Your task to perform on an android device: check google app version Image 0: 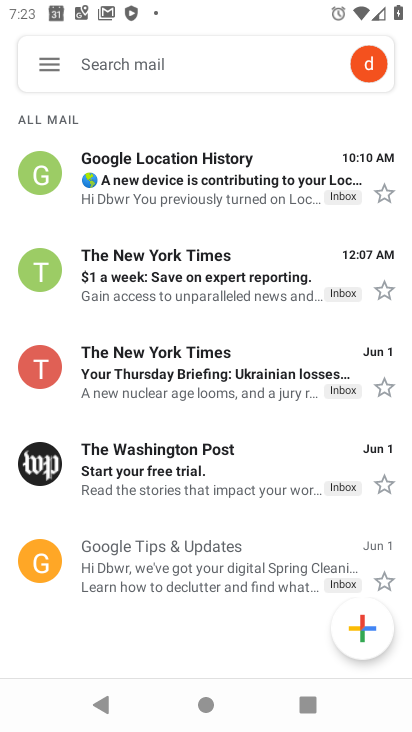
Step 0: press home button
Your task to perform on an android device: check google app version Image 1: 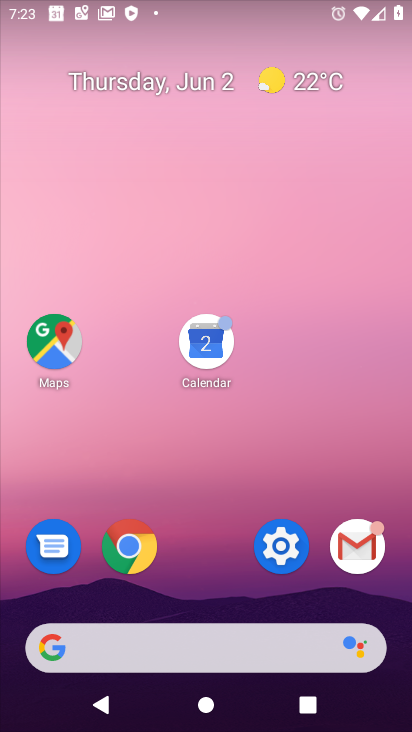
Step 1: click (133, 551)
Your task to perform on an android device: check google app version Image 2: 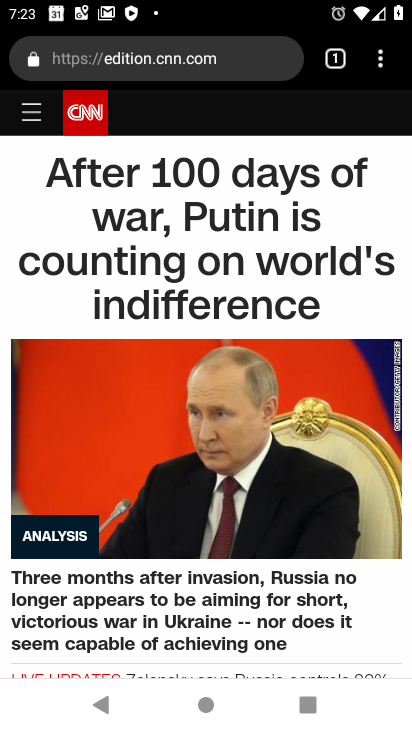
Step 2: click (388, 60)
Your task to perform on an android device: check google app version Image 3: 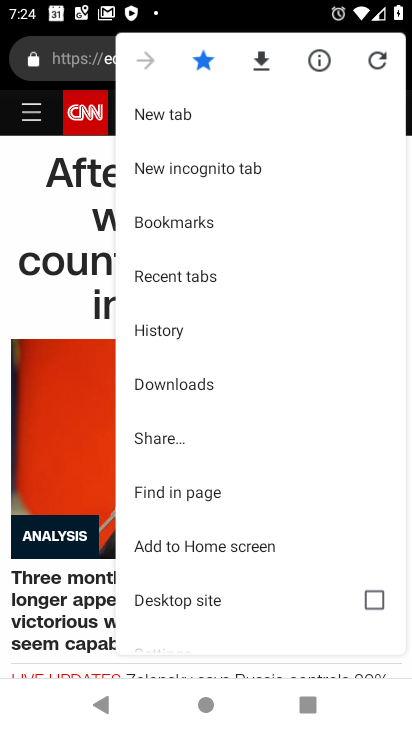
Step 3: drag from (261, 577) to (266, 419)
Your task to perform on an android device: check google app version Image 4: 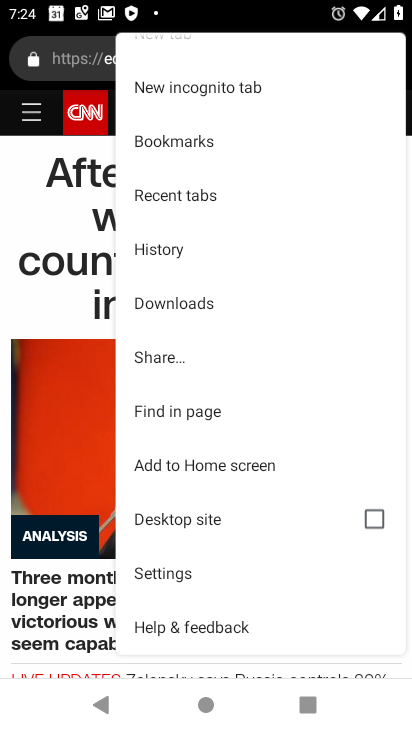
Step 4: click (163, 581)
Your task to perform on an android device: check google app version Image 5: 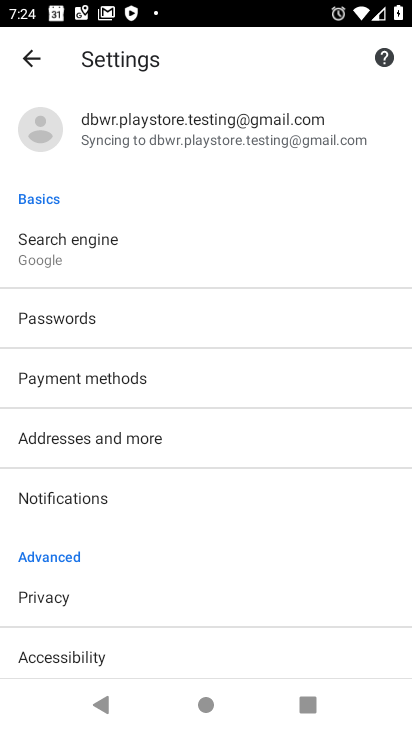
Step 5: drag from (134, 539) to (129, 439)
Your task to perform on an android device: check google app version Image 6: 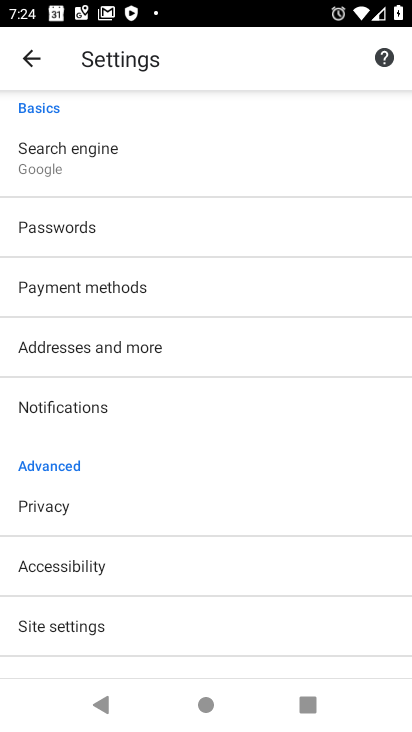
Step 6: drag from (170, 634) to (174, 328)
Your task to perform on an android device: check google app version Image 7: 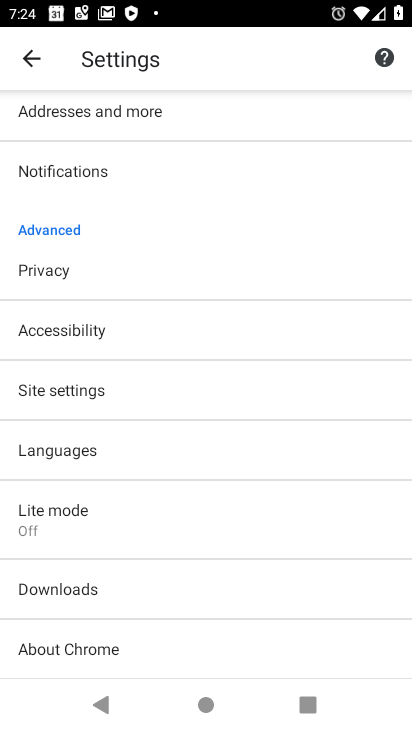
Step 7: click (62, 656)
Your task to perform on an android device: check google app version Image 8: 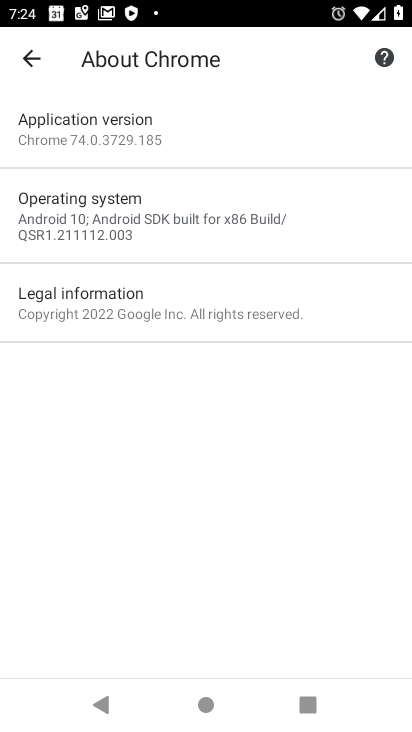
Step 8: click (125, 130)
Your task to perform on an android device: check google app version Image 9: 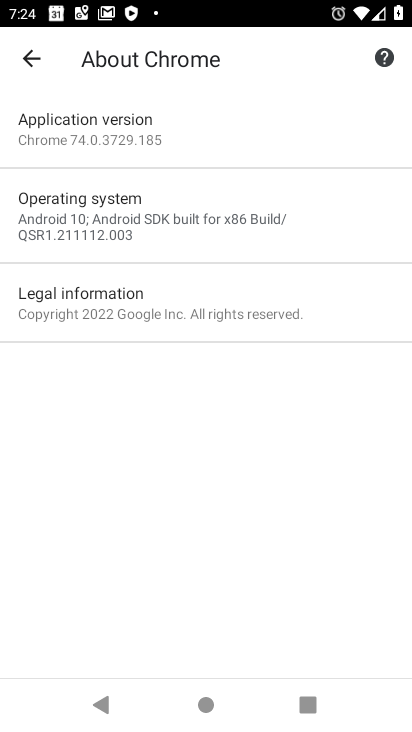
Step 9: task complete